Your task to perform on an android device: Is it going to rain this weekend? Image 0: 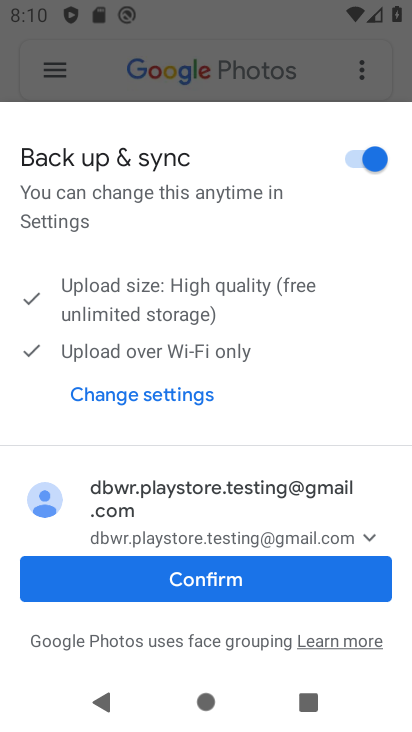
Step 0: press home button
Your task to perform on an android device: Is it going to rain this weekend? Image 1: 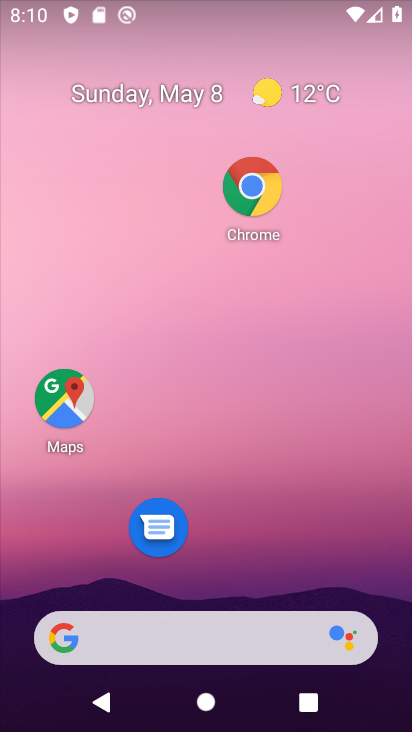
Step 1: drag from (293, 544) to (301, 253)
Your task to perform on an android device: Is it going to rain this weekend? Image 2: 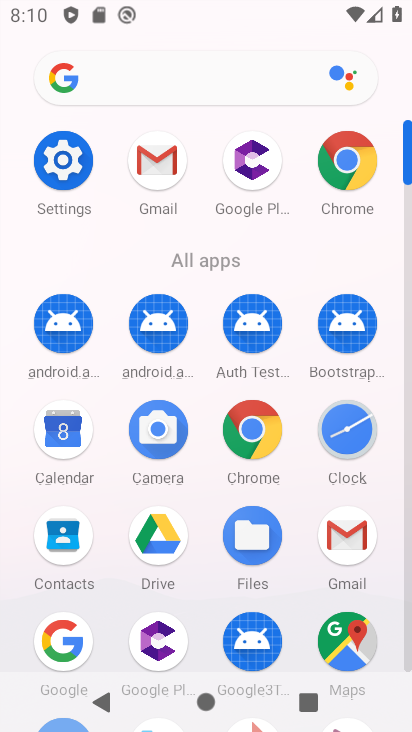
Step 2: click (257, 412)
Your task to perform on an android device: Is it going to rain this weekend? Image 3: 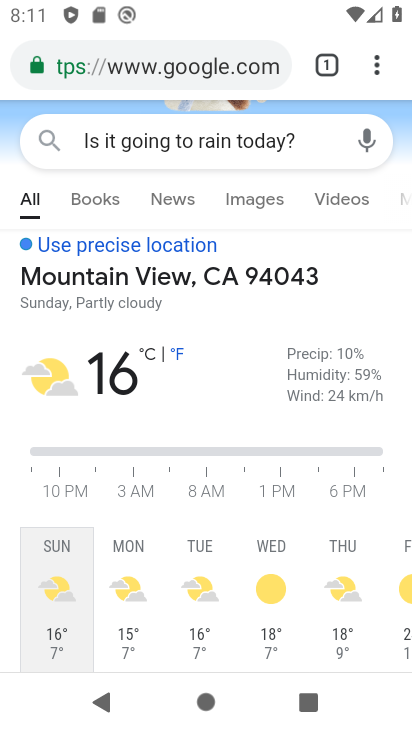
Step 3: task complete